Your task to perform on an android device: turn off location Image 0: 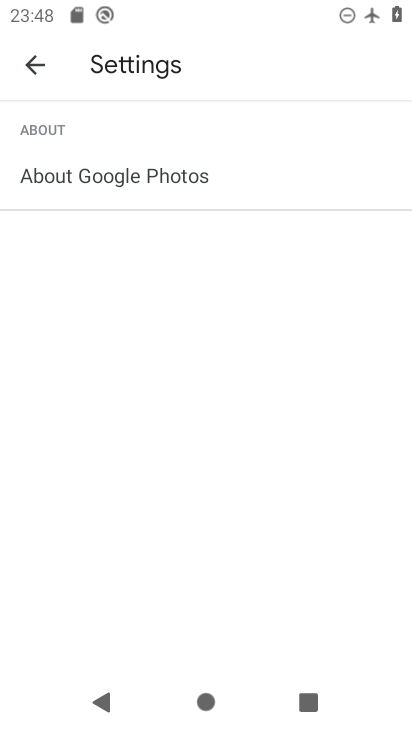
Step 0: press home button
Your task to perform on an android device: turn off location Image 1: 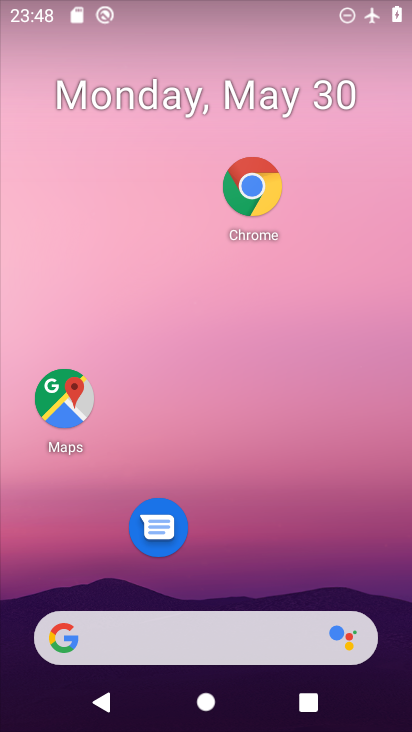
Step 1: drag from (279, 565) to (236, 268)
Your task to perform on an android device: turn off location Image 2: 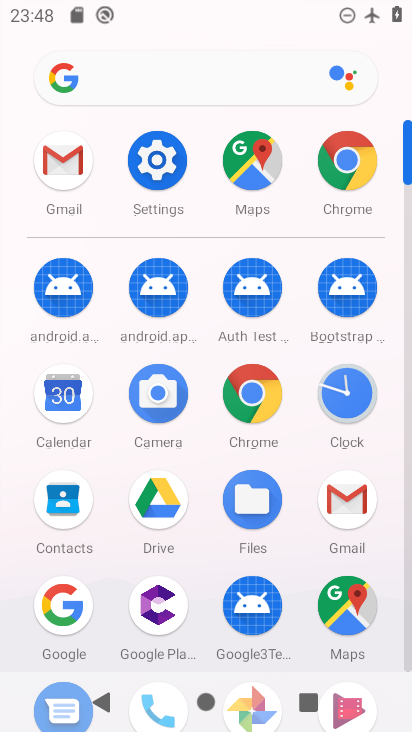
Step 2: click (149, 155)
Your task to perform on an android device: turn off location Image 3: 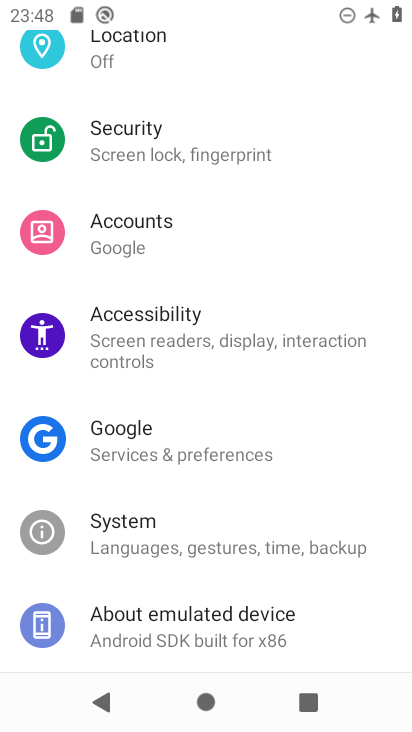
Step 3: click (119, 33)
Your task to perform on an android device: turn off location Image 4: 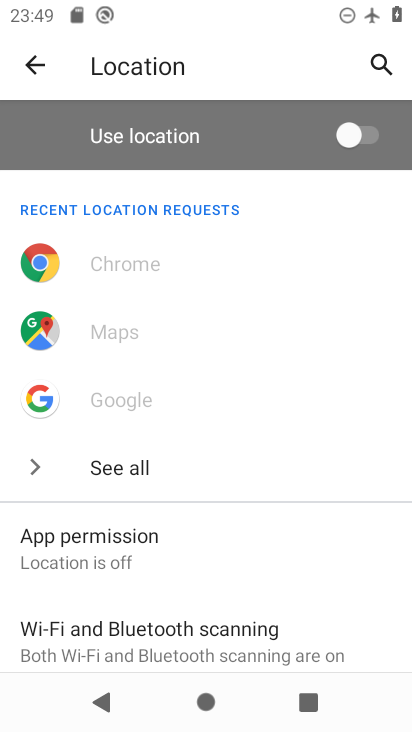
Step 4: task complete